Your task to perform on an android device: Clear the shopping cart on ebay. Add "razer huntsman" to the cart on ebay Image 0: 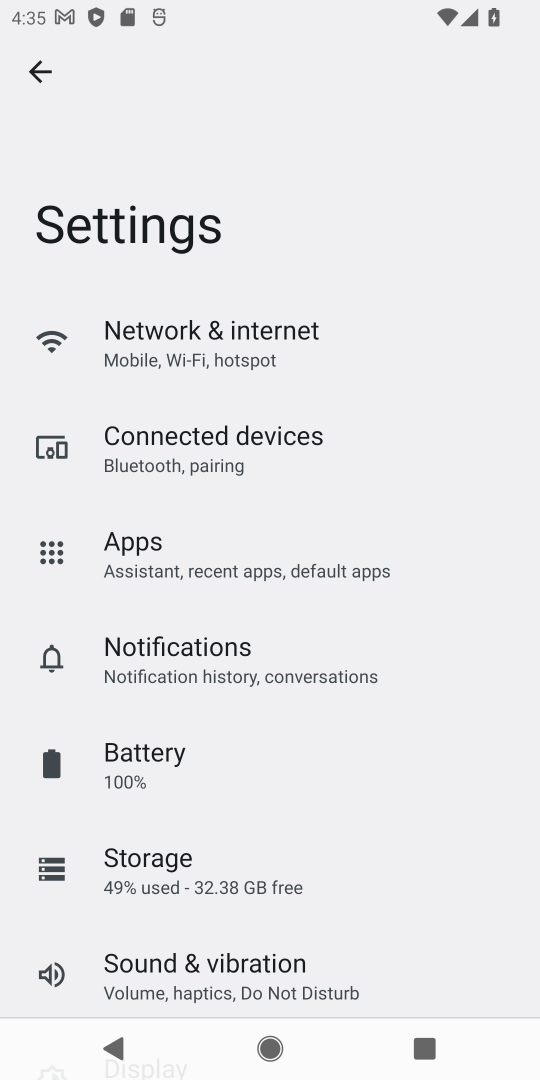
Step 0: press home button
Your task to perform on an android device: Clear the shopping cart on ebay. Add "razer huntsman" to the cart on ebay Image 1: 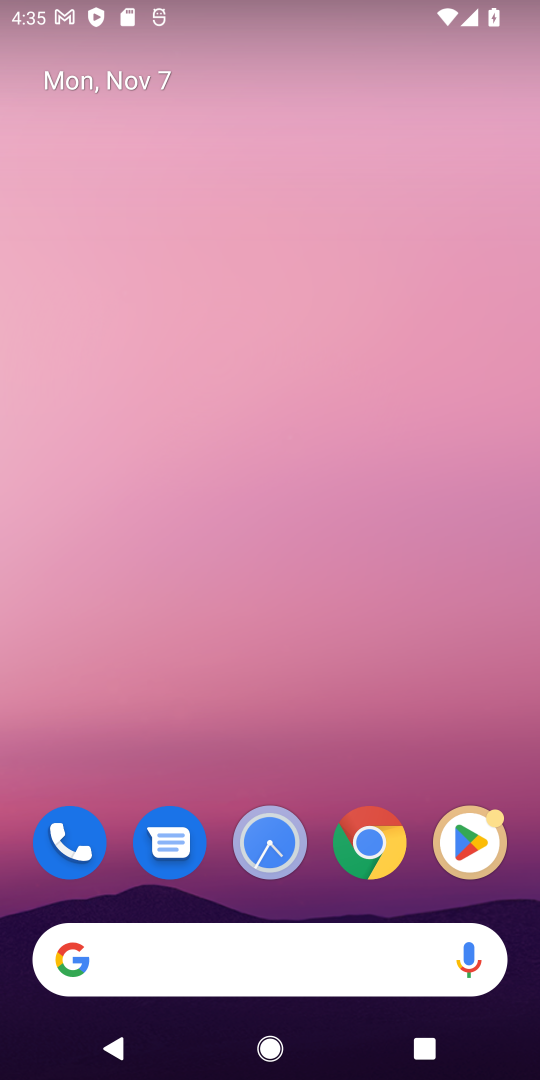
Step 1: click (355, 839)
Your task to perform on an android device: Clear the shopping cart on ebay. Add "razer huntsman" to the cart on ebay Image 2: 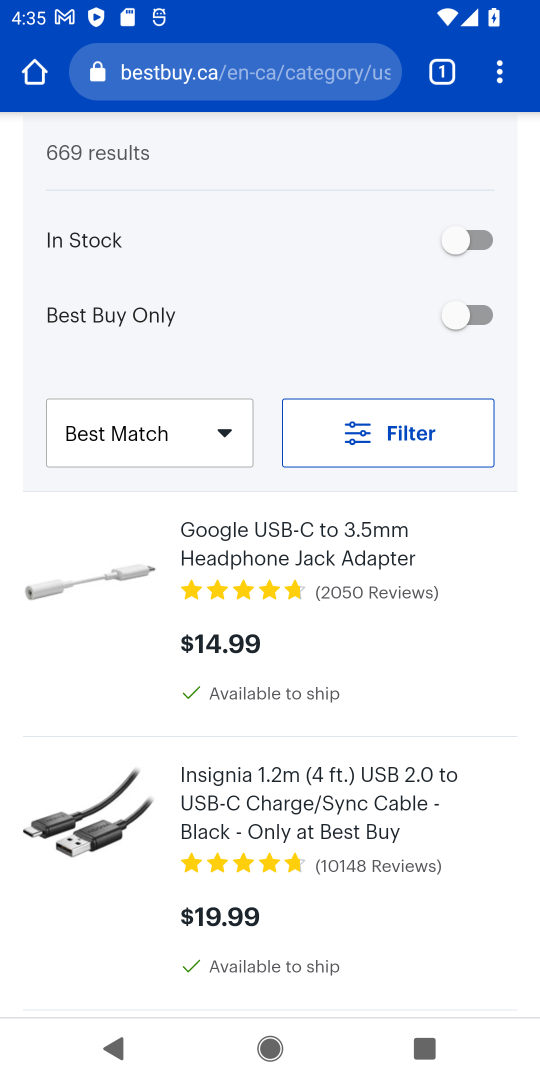
Step 2: click (221, 75)
Your task to perform on an android device: Clear the shopping cart on ebay. Add "razer huntsman" to the cart on ebay Image 3: 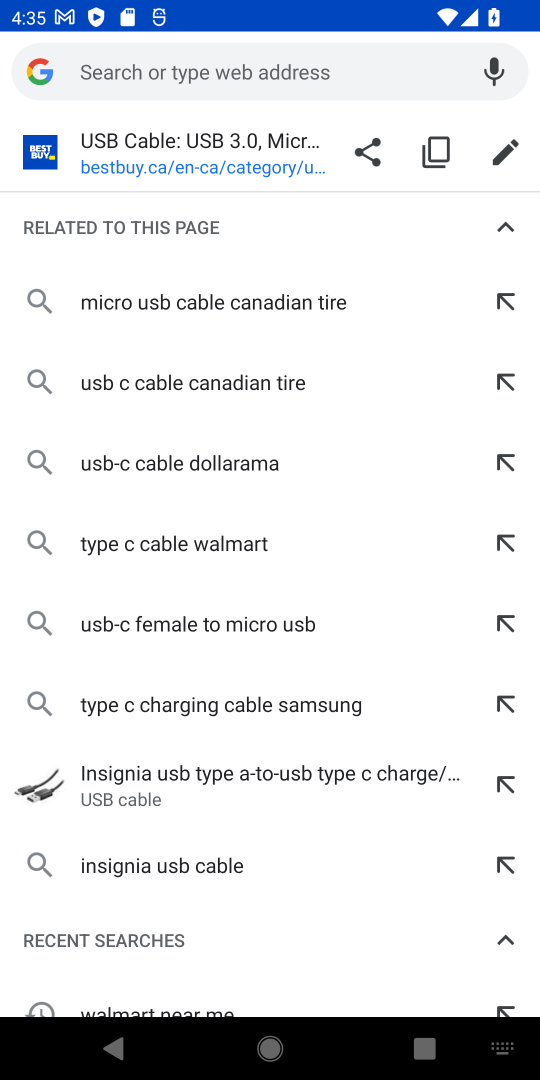
Step 3: type "ebay"
Your task to perform on an android device: Clear the shopping cart on ebay. Add "razer huntsman" to the cart on ebay Image 4: 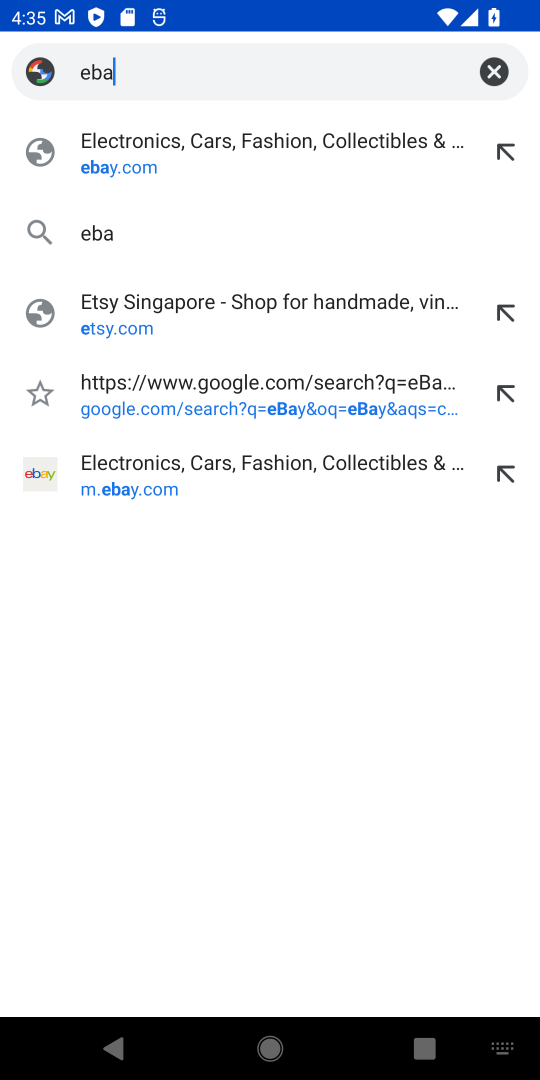
Step 4: press enter
Your task to perform on an android device: Clear the shopping cart on ebay. Add "razer huntsman" to the cart on ebay Image 5: 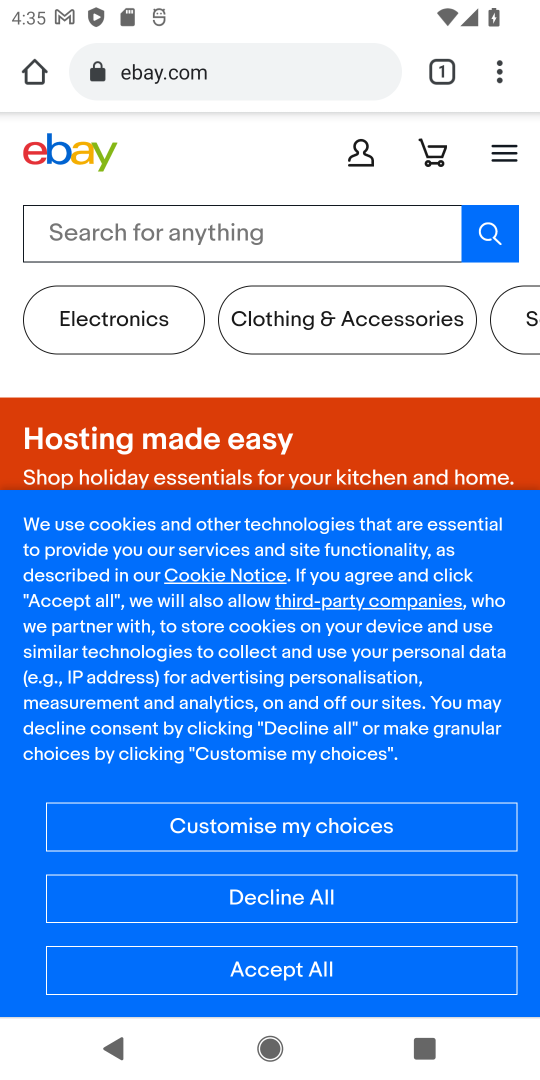
Step 5: click (276, 238)
Your task to perform on an android device: Clear the shopping cart on ebay. Add "razer huntsman" to the cart on ebay Image 6: 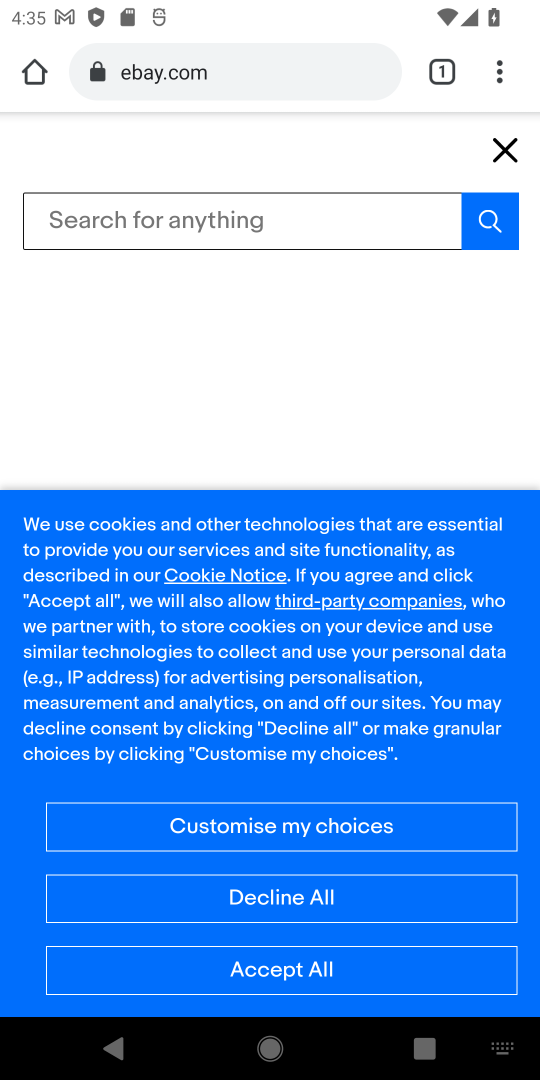
Step 6: click (290, 967)
Your task to perform on an android device: Clear the shopping cart on ebay. Add "razer huntsman" to the cart on ebay Image 7: 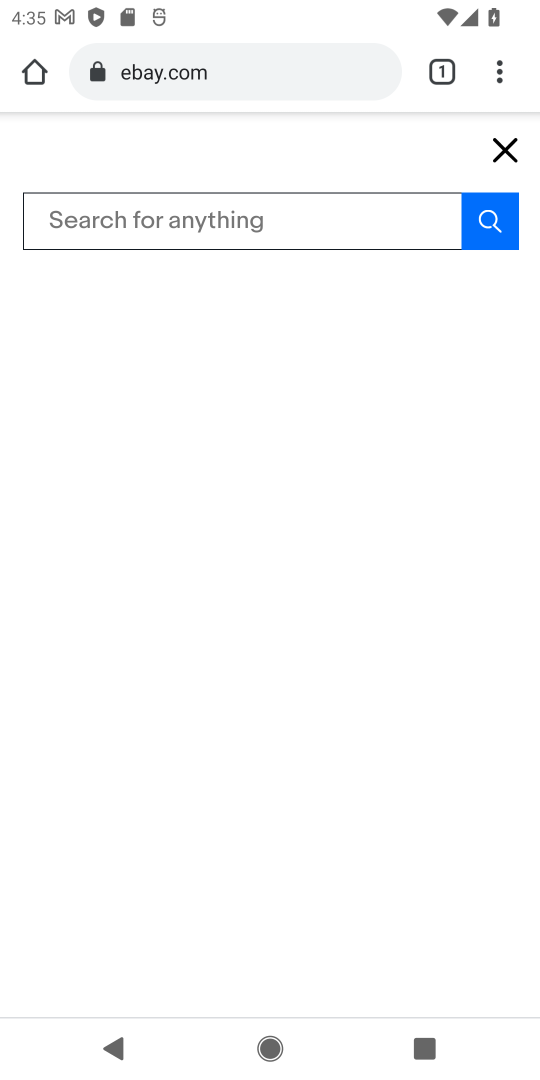
Step 7: click (168, 210)
Your task to perform on an android device: Clear the shopping cart on ebay. Add "razer huntsman" to the cart on ebay Image 8: 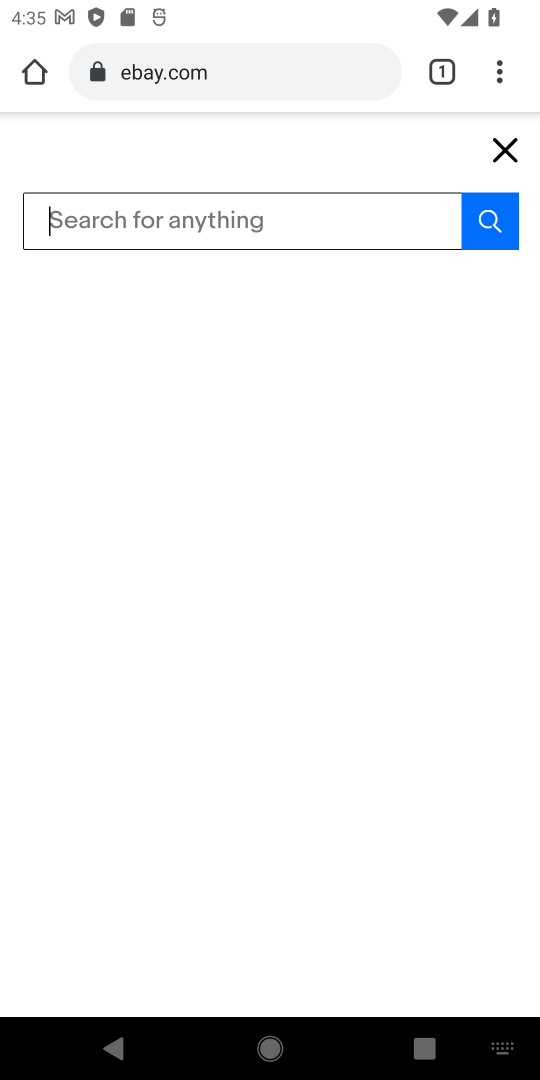
Step 8: type "razer huntsman"
Your task to perform on an android device: Clear the shopping cart on ebay. Add "razer huntsman" to the cart on ebay Image 9: 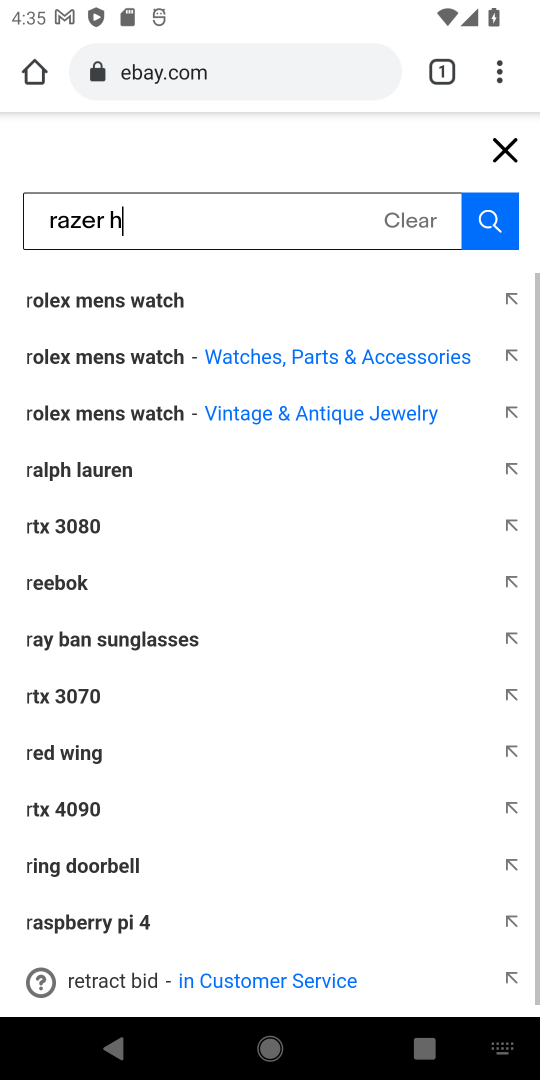
Step 9: press enter
Your task to perform on an android device: Clear the shopping cart on ebay. Add "razer huntsman" to the cart on ebay Image 10: 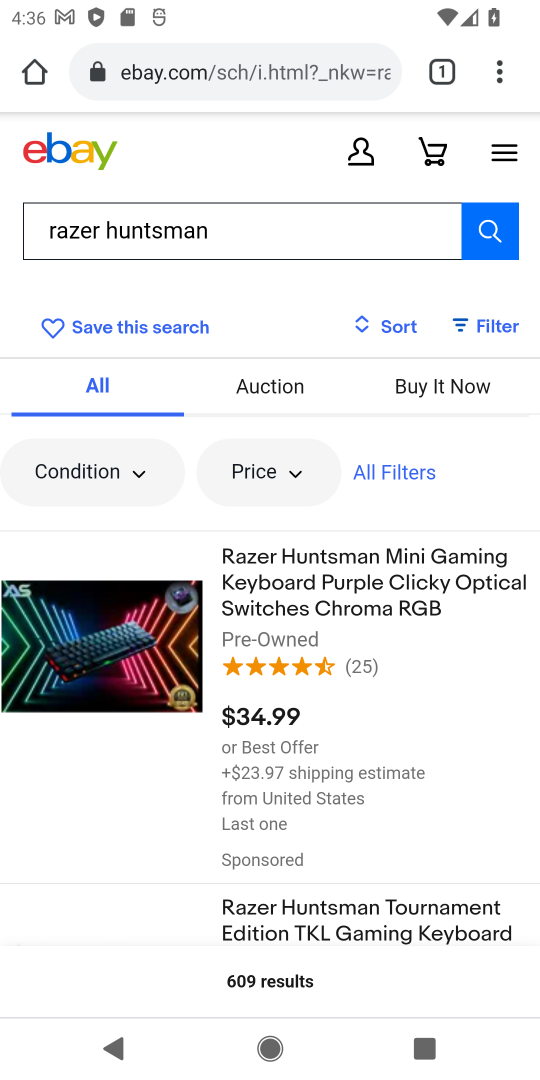
Step 10: click (314, 593)
Your task to perform on an android device: Clear the shopping cart on ebay. Add "razer huntsman" to the cart on ebay Image 11: 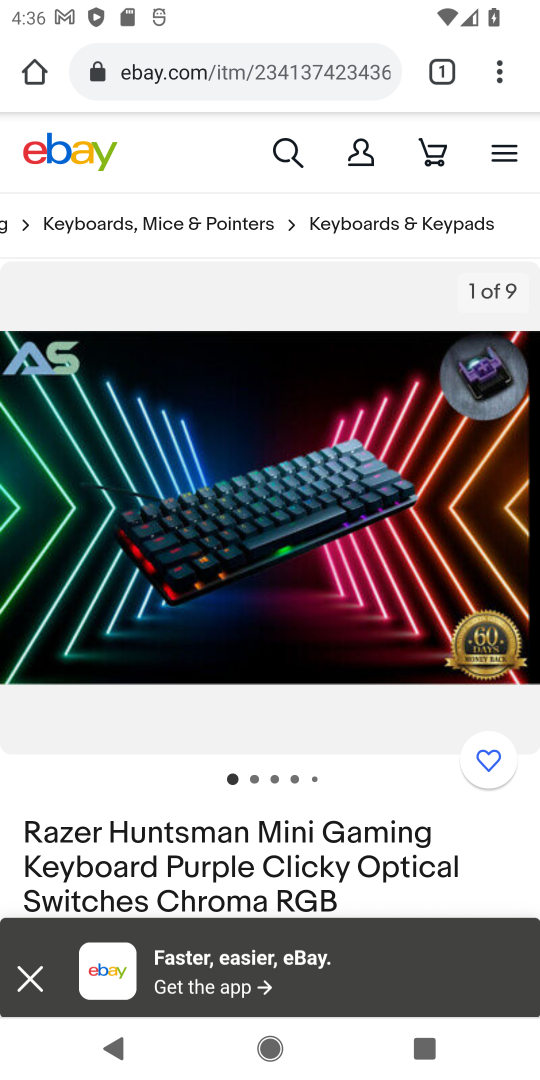
Step 11: drag from (367, 809) to (487, 113)
Your task to perform on an android device: Clear the shopping cart on ebay. Add "razer huntsman" to the cart on ebay Image 12: 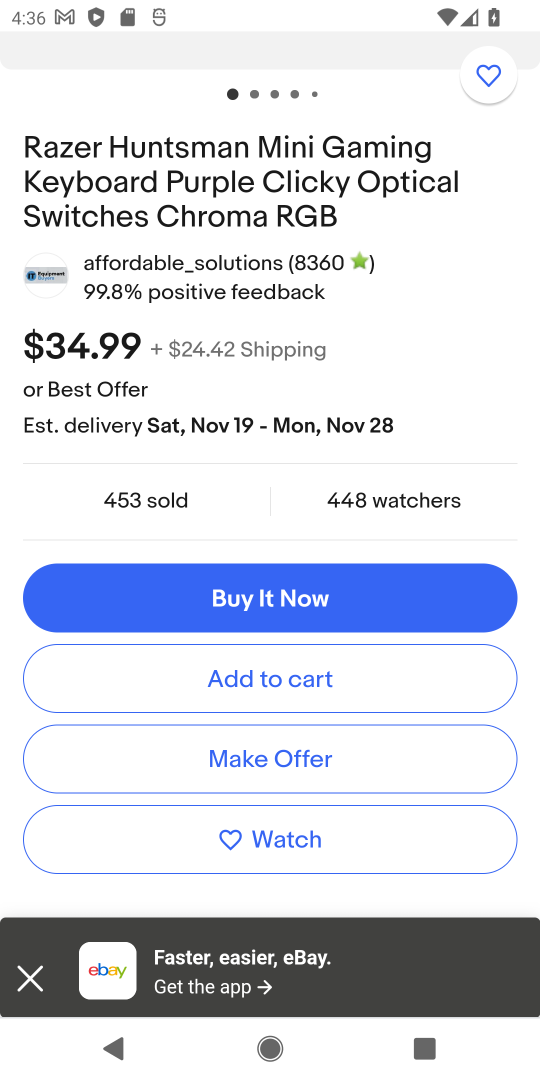
Step 12: click (303, 675)
Your task to perform on an android device: Clear the shopping cart on ebay. Add "razer huntsman" to the cart on ebay Image 13: 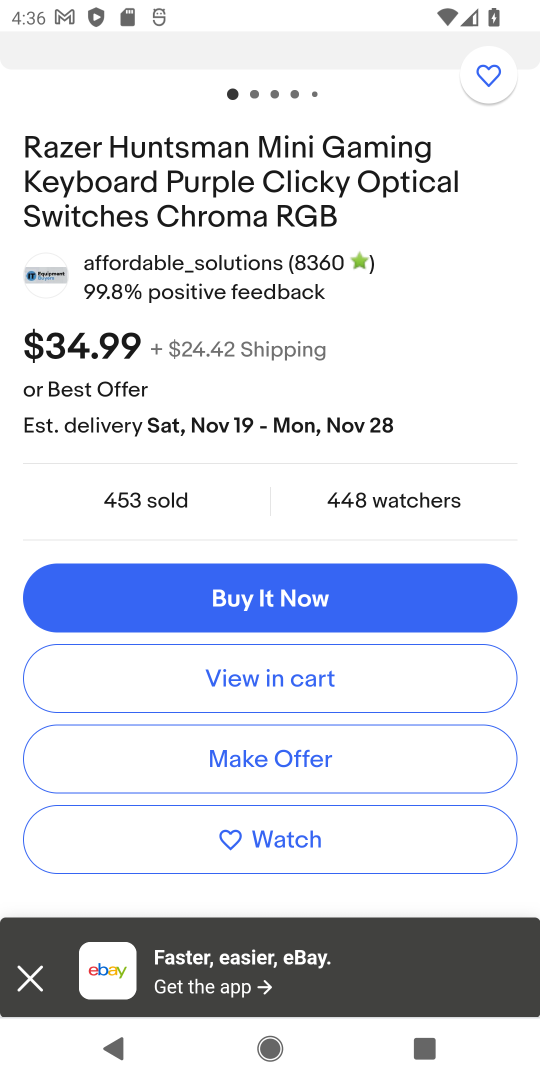
Step 13: click (261, 684)
Your task to perform on an android device: Clear the shopping cart on ebay. Add "razer huntsman" to the cart on ebay Image 14: 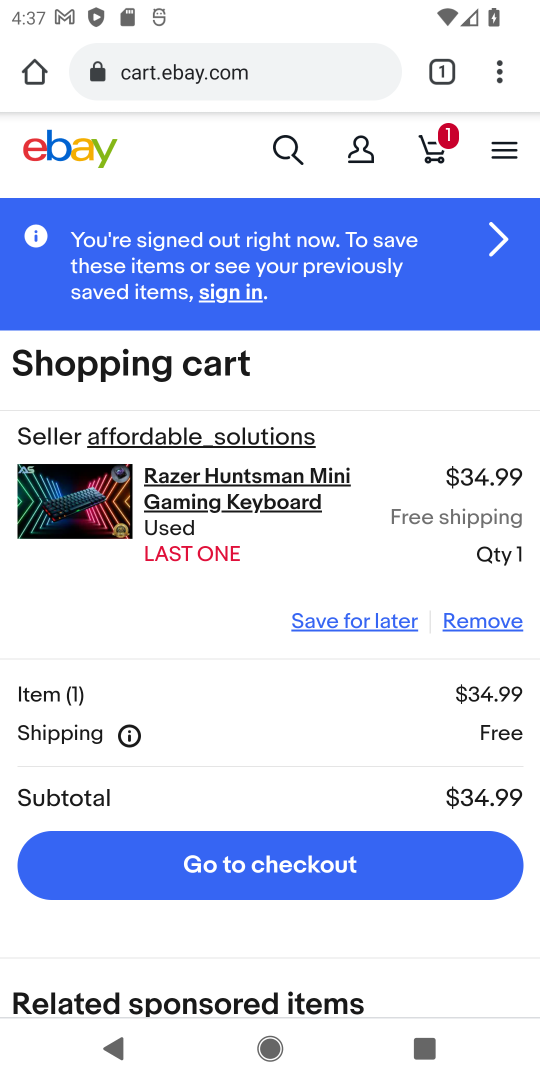
Step 14: task complete